Your task to perform on an android device: Clear the shopping cart on walmart. Image 0: 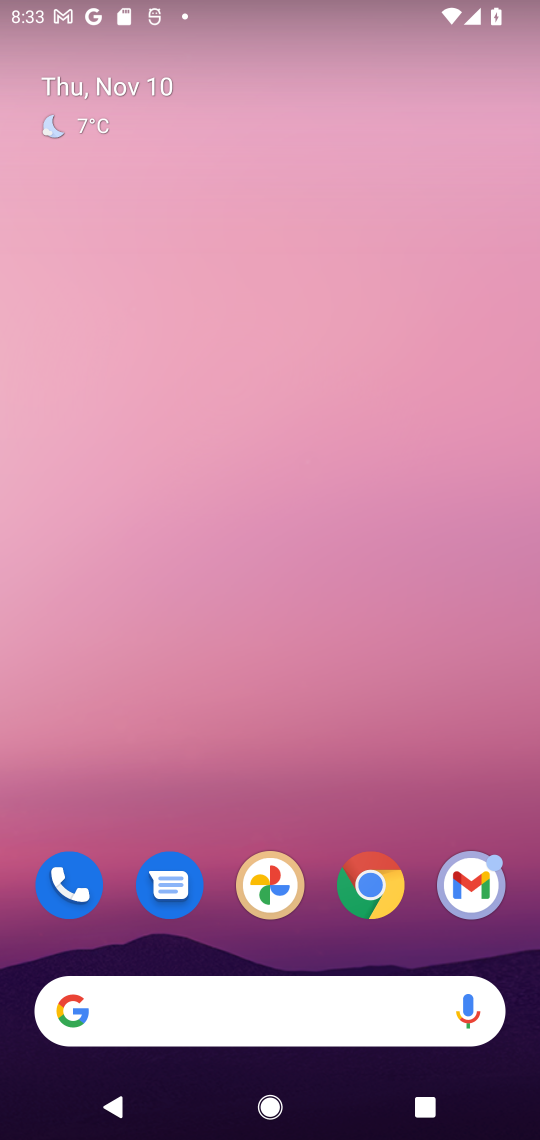
Step 0: click (380, 888)
Your task to perform on an android device: Clear the shopping cart on walmart. Image 1: 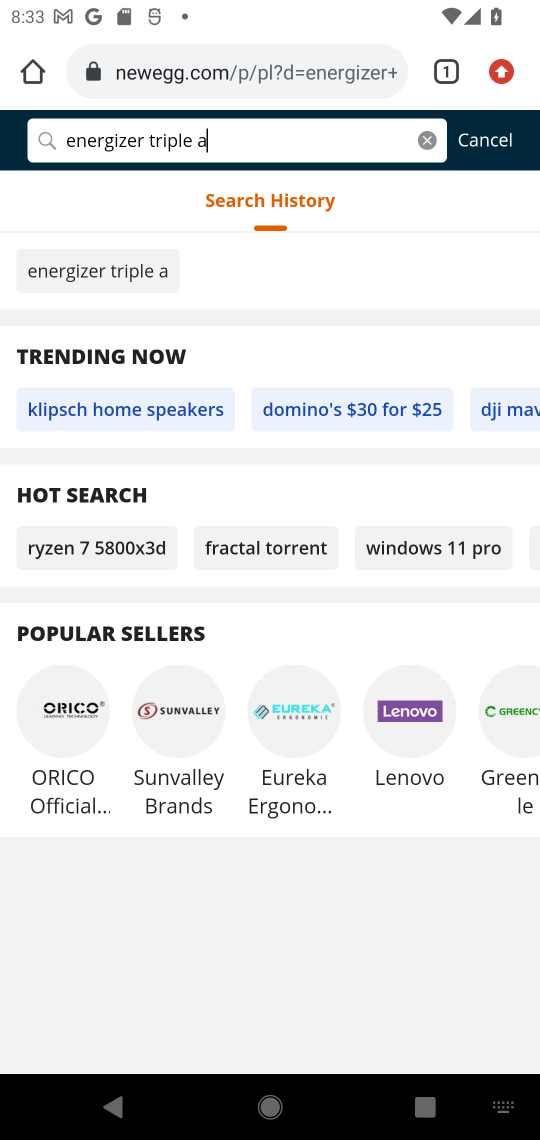
Step 1: click (193, 78)
Your task to perform on an android device: Clear the shopping cart on walmart. Image 2: 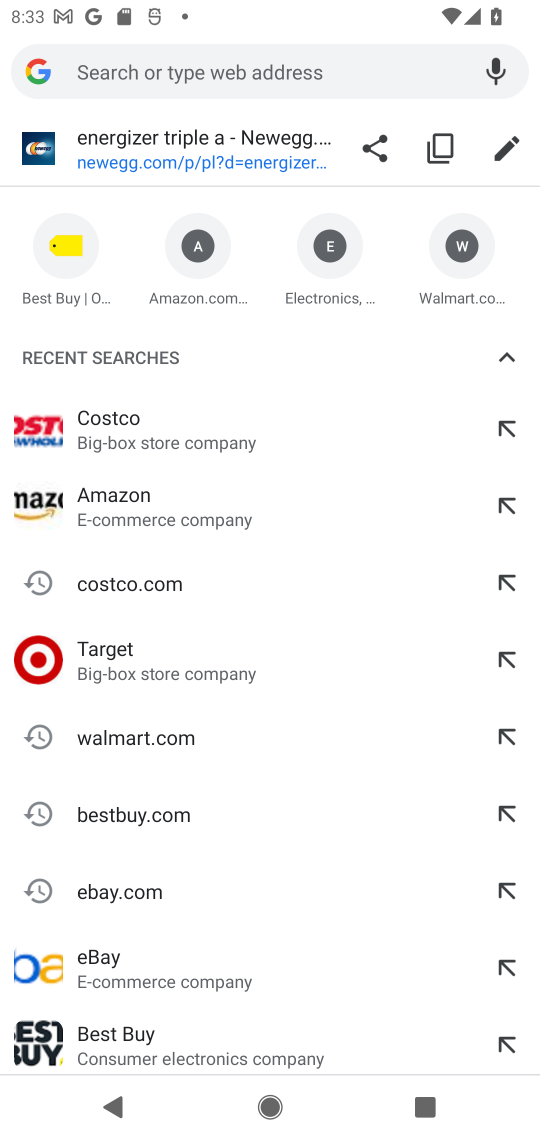
Step 2: click (462, 260)
Your task to perform on an android device: Clear the shopping cart on walmart. Image 3: 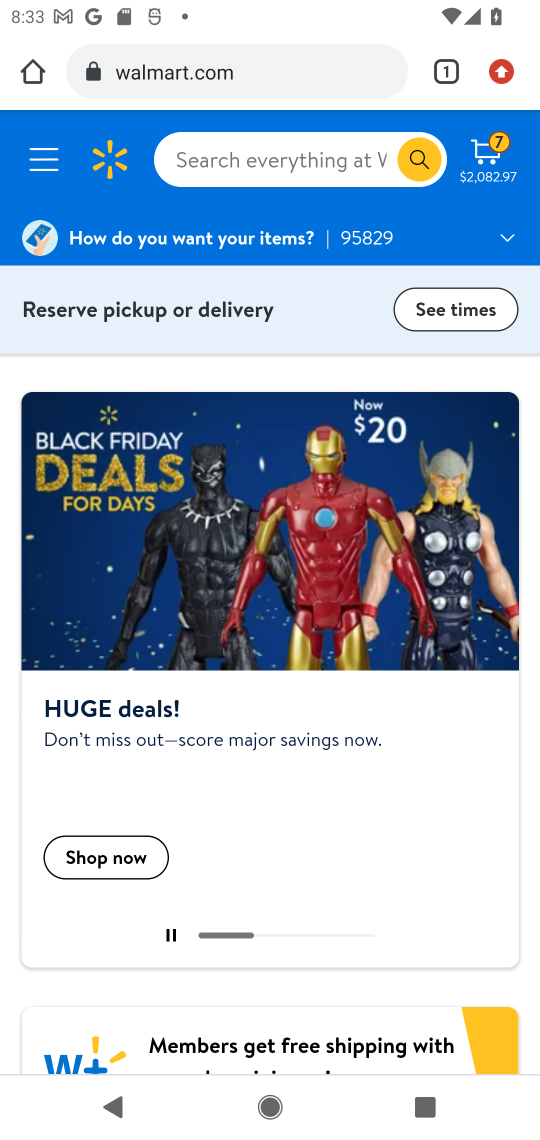
Step 3: click (485, 150)
Your task to perform on an android device: Clear the shopping cart on walmart. Image 4: 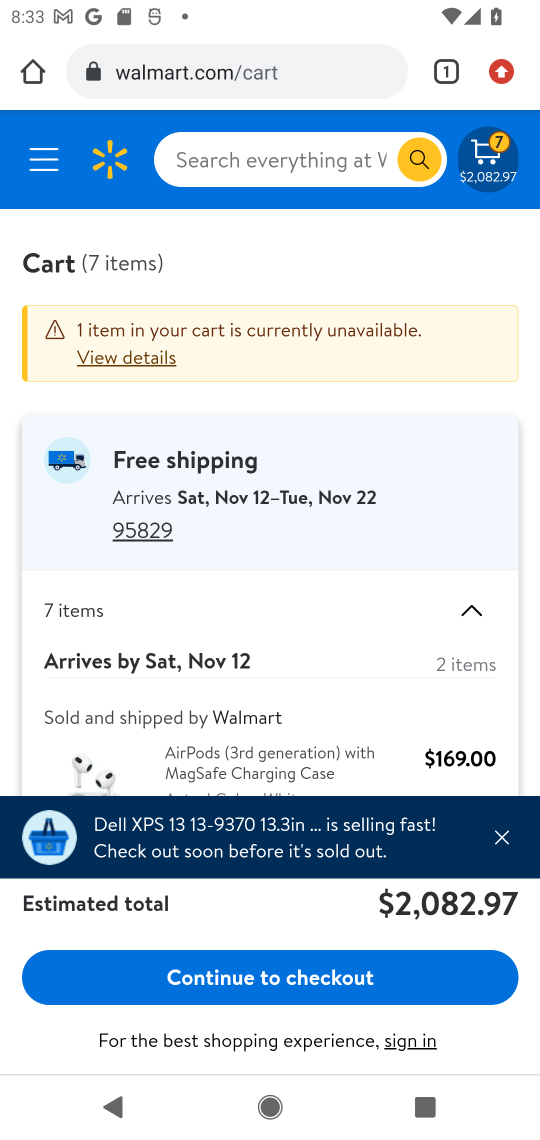
Step 4: drag from (375, 655) to (352, 233)
Your task to perform on an android device: Clear the shopping cart on walmart. Image 5: 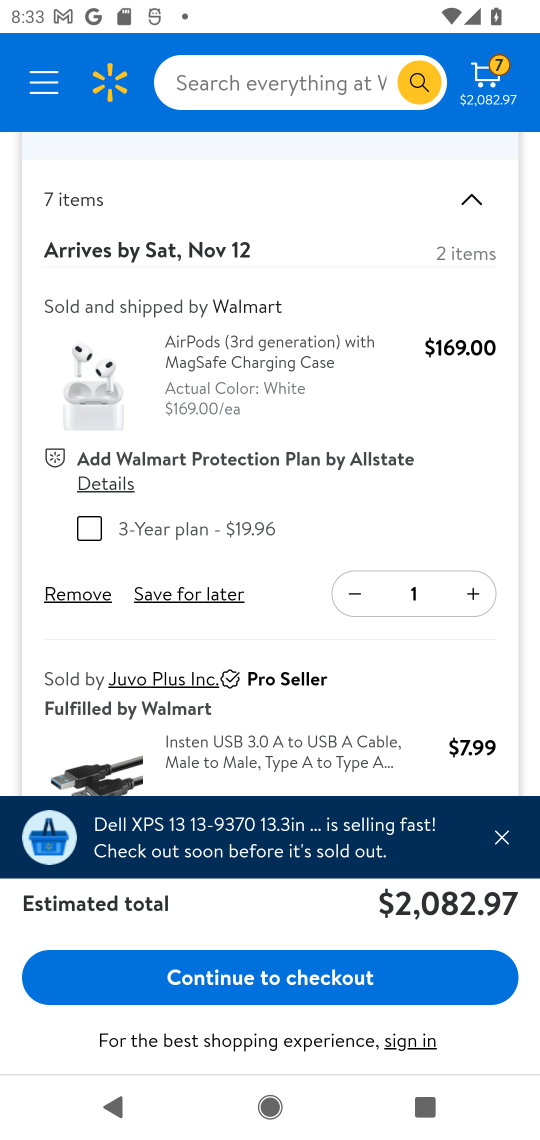
Step 5: click (511, 836)
Your task to perform on an android device: Clear the shopping cart on walmart. Image 6: 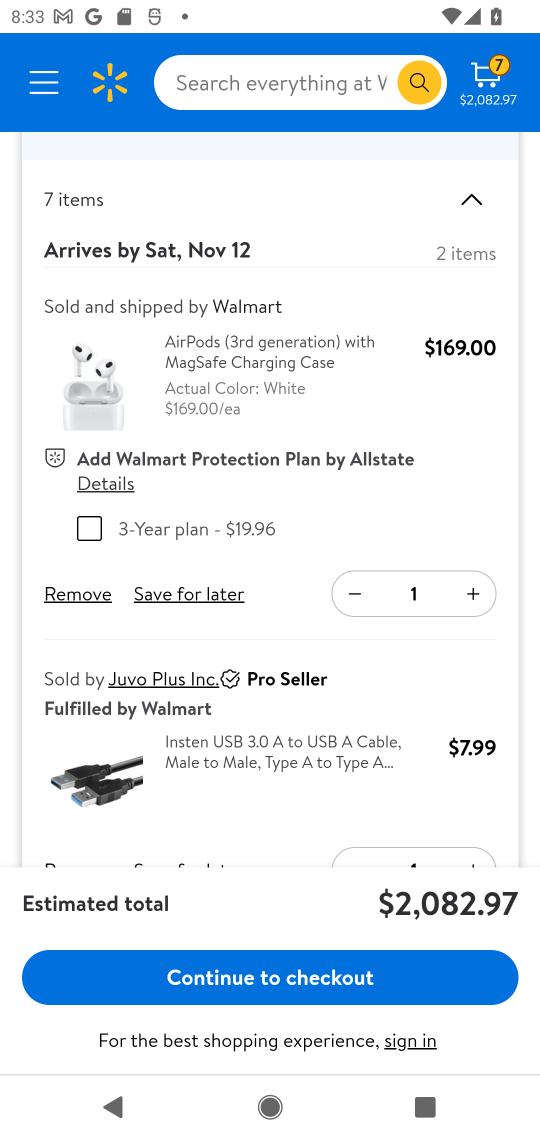
Step 6: click (68, 588)
Your task to perform on an android device: Clear the shopping cart on walmart. Image 7: 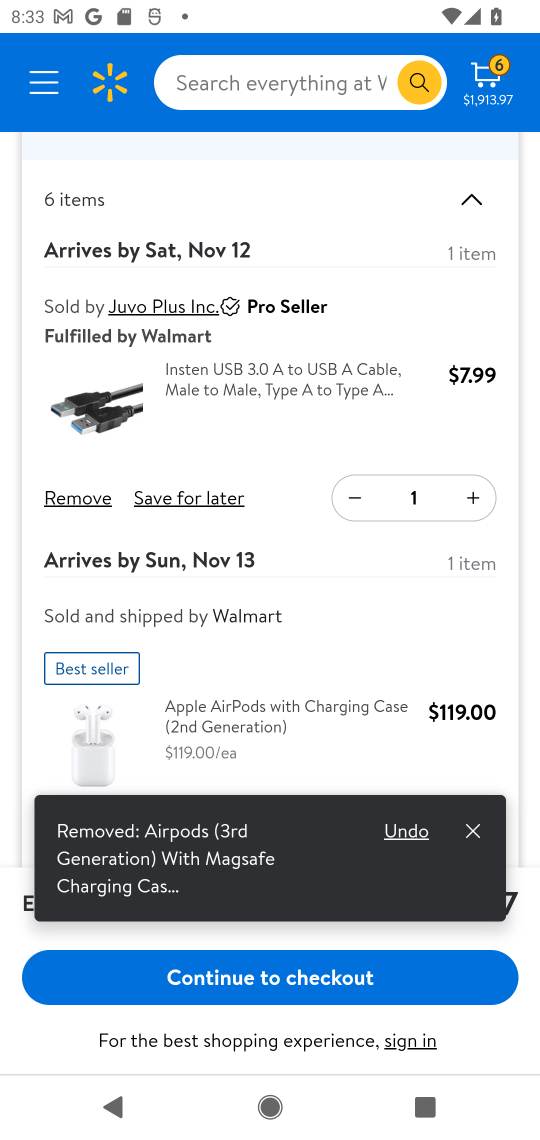
Step 7: click (74, 507)
Your task to perform on an android device: Clear the shopping cart on walmart. Image 8: 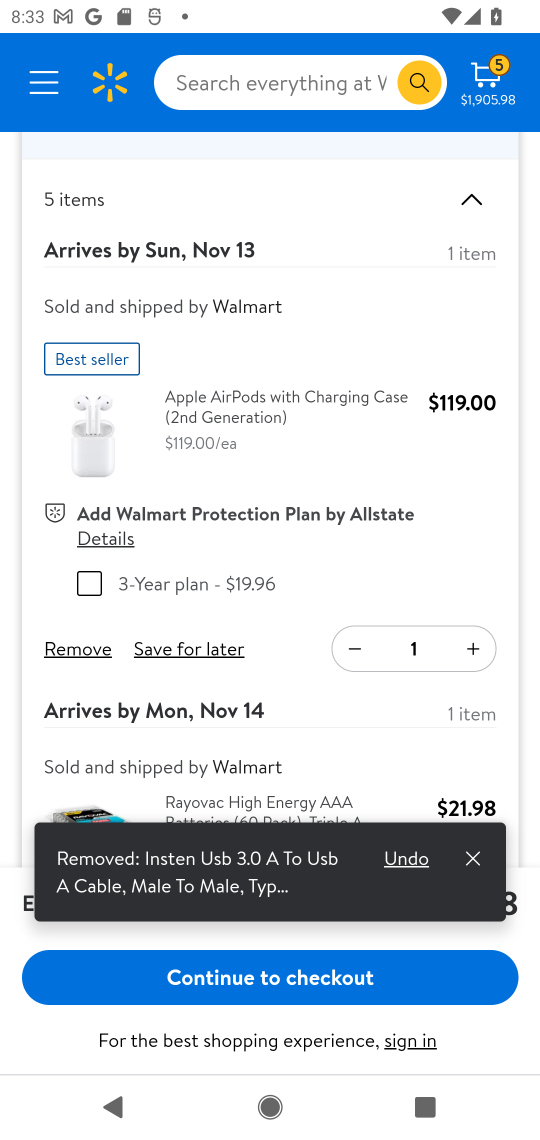
Step 8: click (90, 647)
Your task to perform on an android device: Clear the shopping cart on walmart. Image 9: 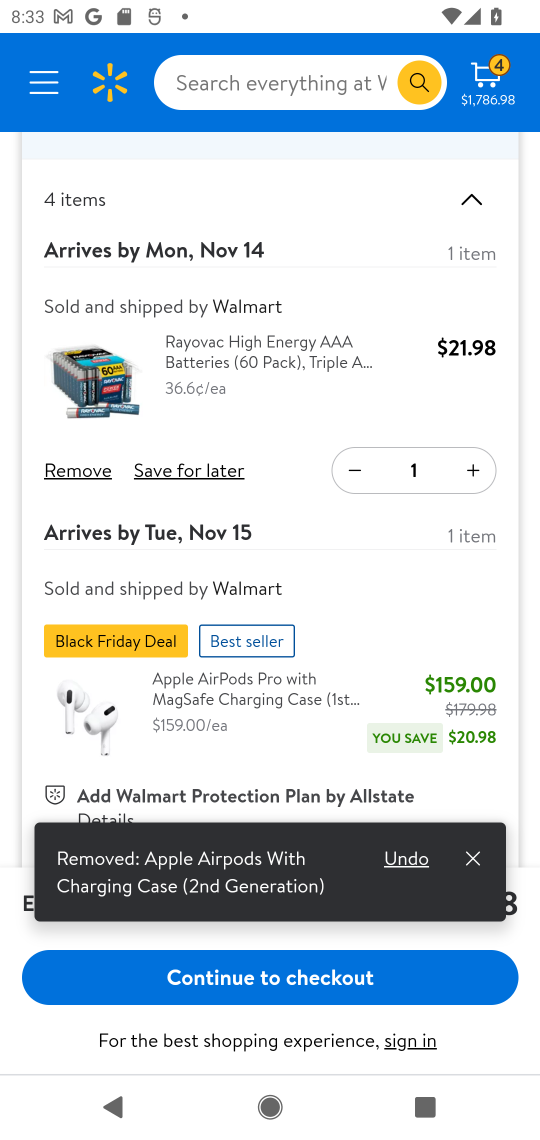
Step 9: click (81, 472)
Your task to perform on an android device: Clear the shopping cart on walmart. Image 10: 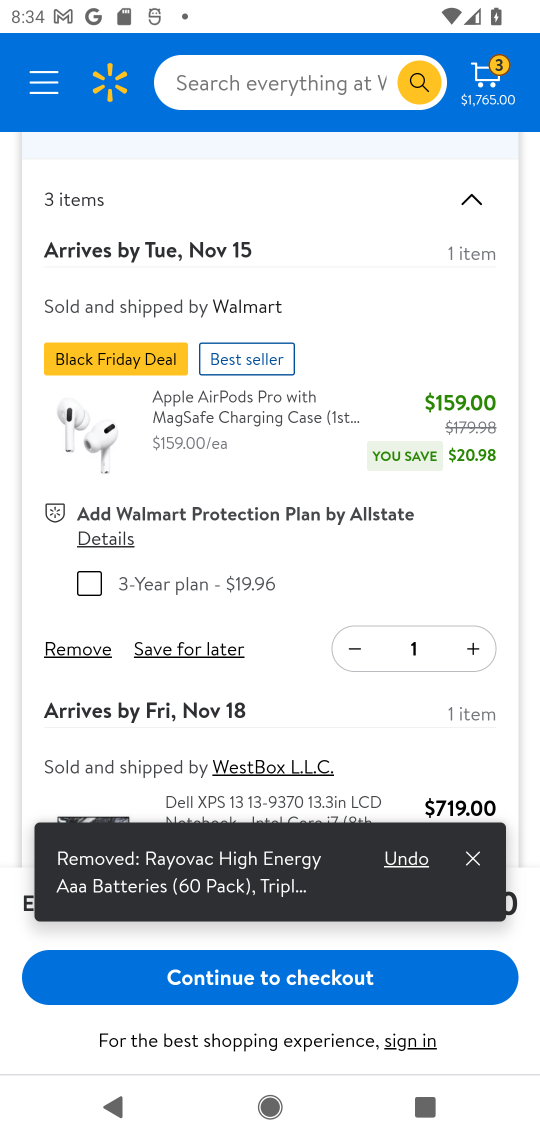
Step 10: click (92, 651)
Your task to perform on an android device: Clear the shopping cart on walmart. Image 11: 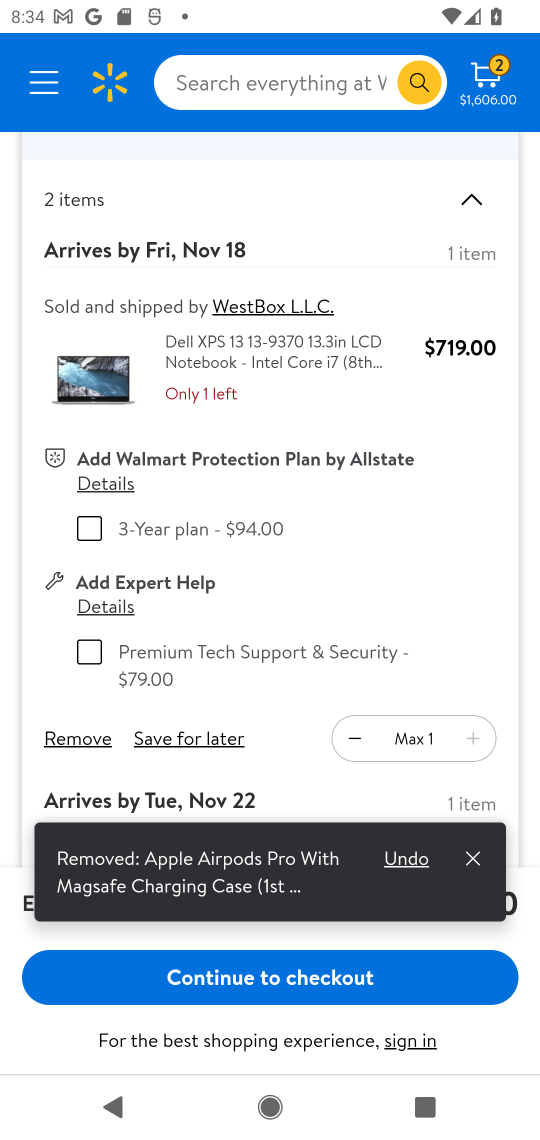
Step 11: click (83, 738)
Your task to perform on an android device: Clear the shopping cart on walmart. Image 12: 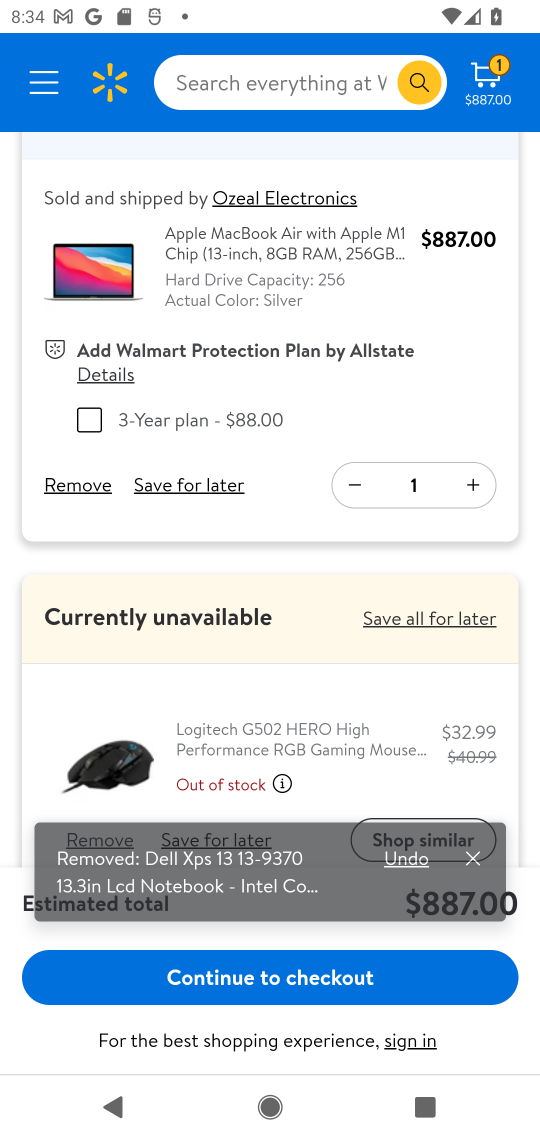
Step 12: click (93, 492)
Your task to perform on an android device: Clear the shopping cart on walmart. Image 13: 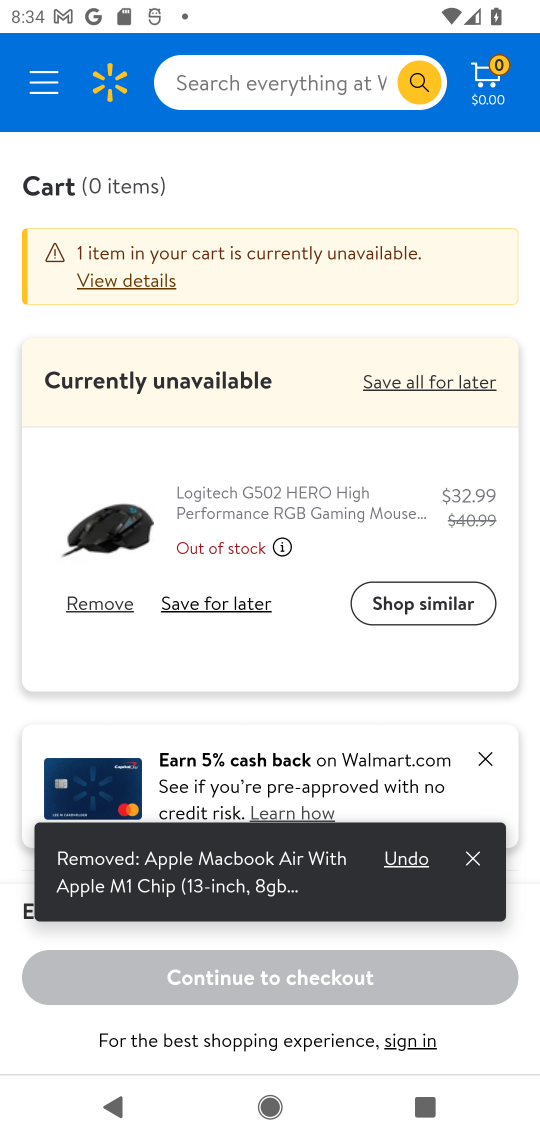
Step 13: click (96, 602)
Your task to perform on an android device: Clear the shopping cart on walmart. Image 14: 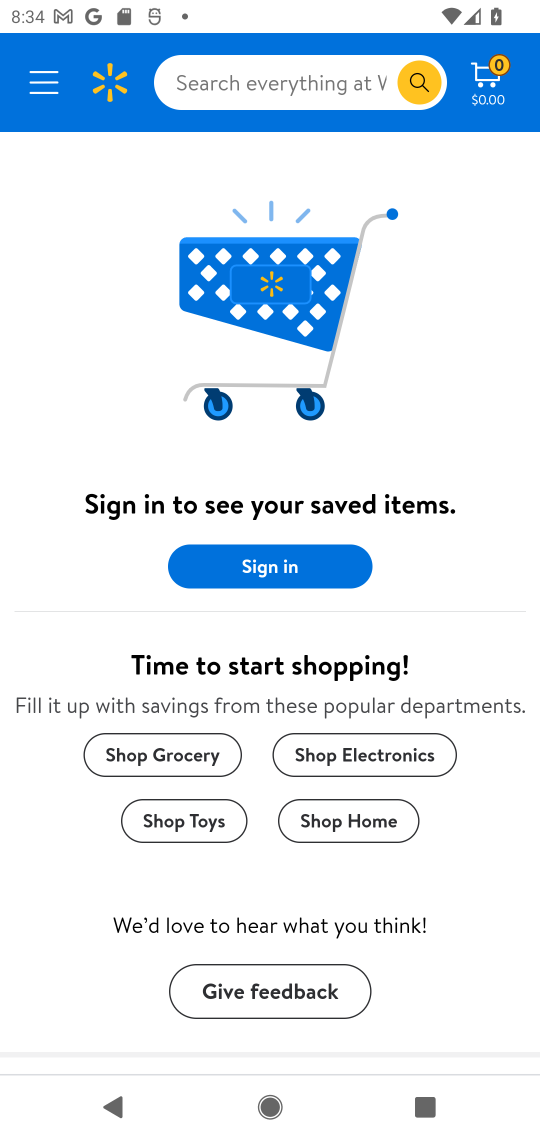
Step 14: task complete